Your task to perform on an android device: turn on bluetooth scan Image 0: 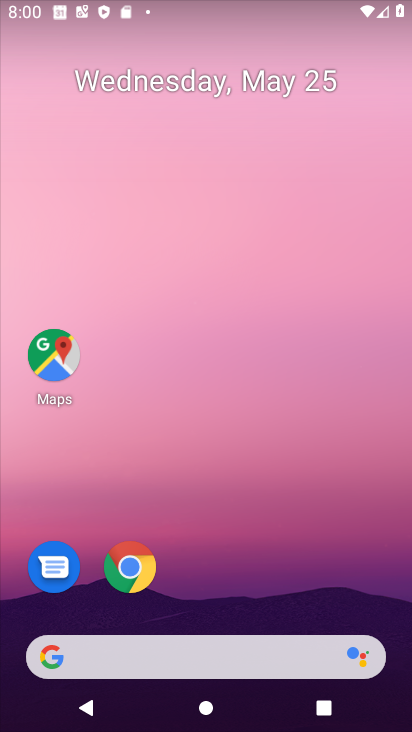
Step 0: drag from (281, 572) to (267, 37)
Your task to perform on an android device: turn on bluetooth scan Image 1: 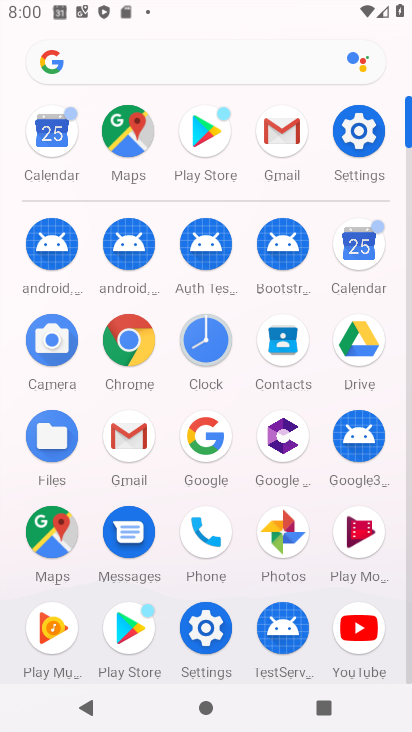
Step 1: click (337, 151)
Your task to perform on an android device: turn on bluetooth scan Image 2: 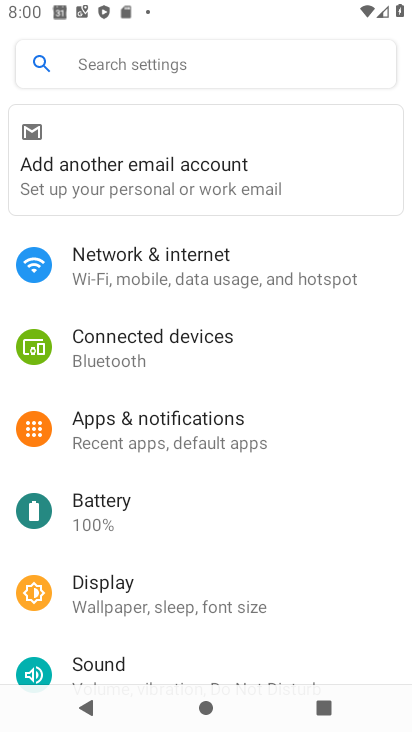
Step 2: drag from (150, 611) to (224, 183)
Your task to perform on an android device: turn on bluetooth scan Image 3: 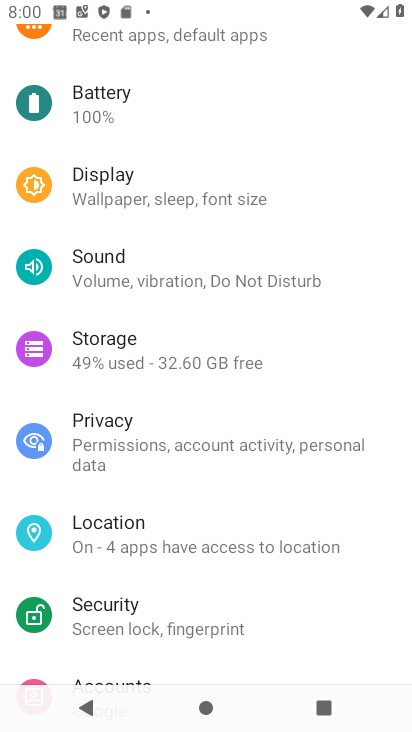
Step 3: click (179, 542)
Your task to perform on an android device: turn on bluetooth scan Image 4: 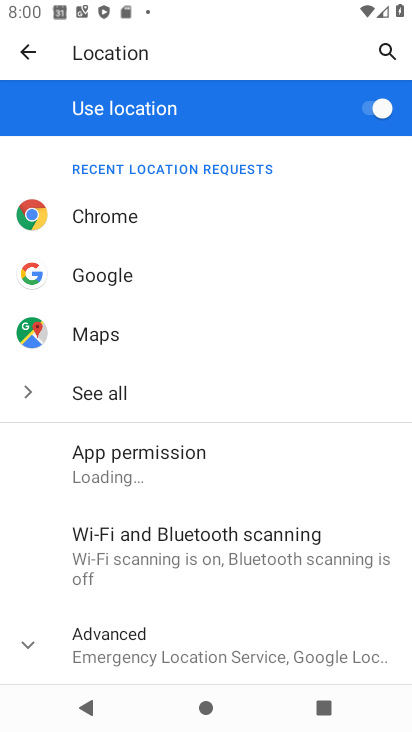
Step 4: click (204, 567)
Your task to perform on an android device: turn on bluetooth scan Image 5: 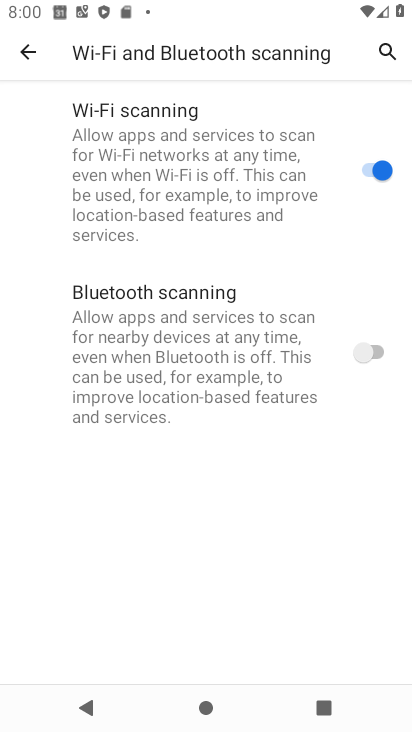
Step 5: click (340, 356)
Your task to perform on an android device: turn on bluetooth scan Image 6: 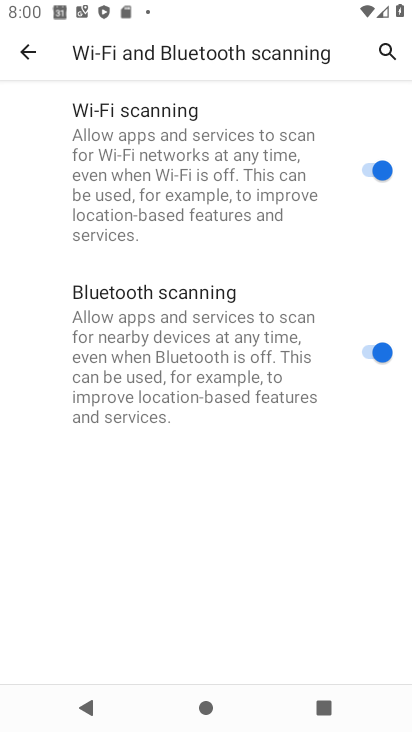
Step 6: task complete